Your task to perform on an android device: Show me popular games on the Play Store Image 0: 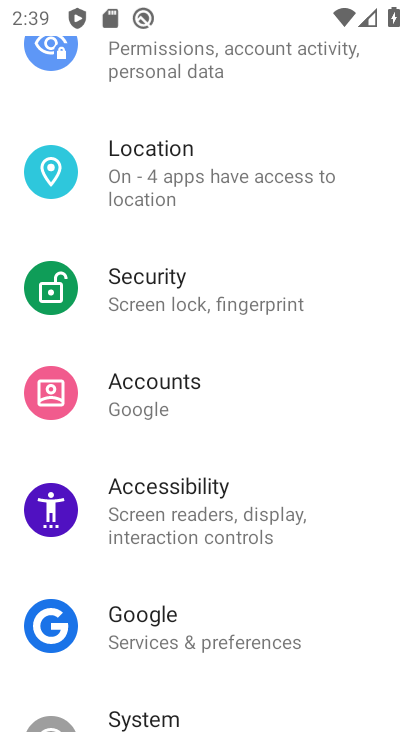
Step 0: press home button
Your task to perform on an android device: Show me popular games on the Play Store Image 1: 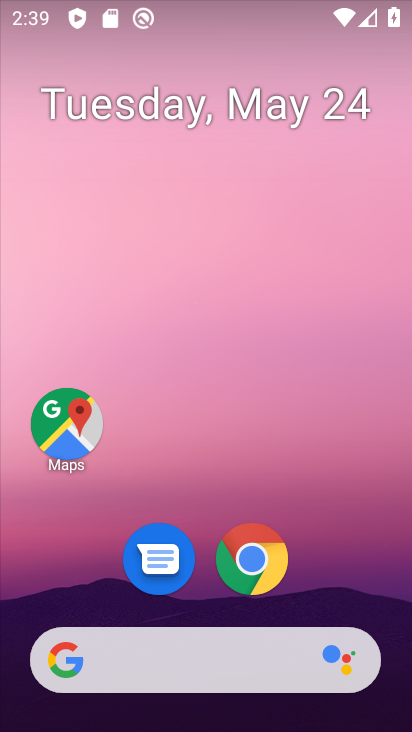
Step 1: drag from (199, 634) to (229, 268)
Your task to perform on an android device: Show me popular games on the Play Store Image 2: 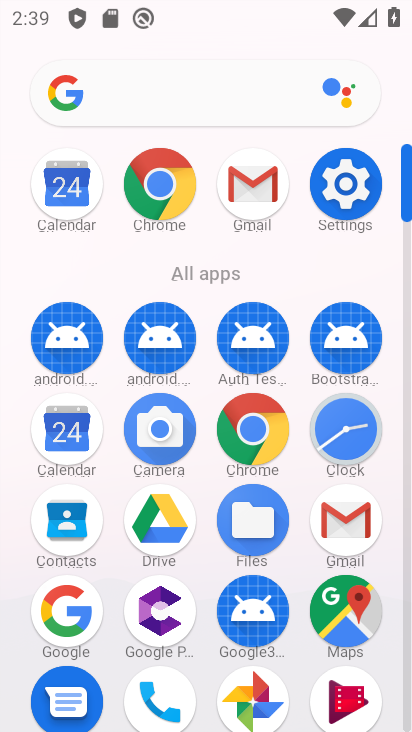
Step 2: drag from (192, 569) to (248, 234)
Your task to perform on an android device: Show me popular games on the Play Store Image 3: 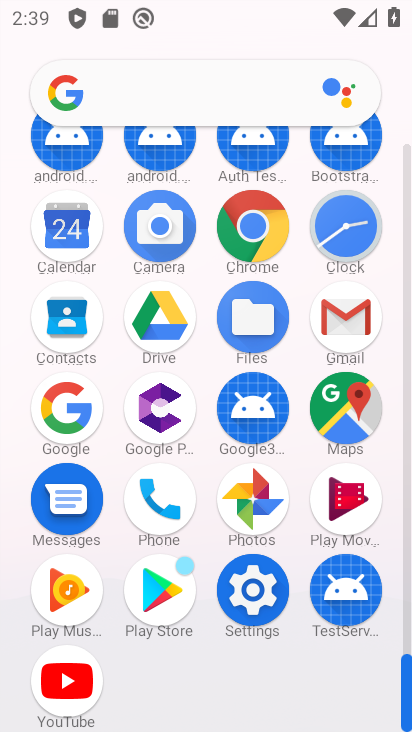
Step 3: click (152, 573)
Your task to perform on an android device: Show me popular games on the Play Store Image 4: 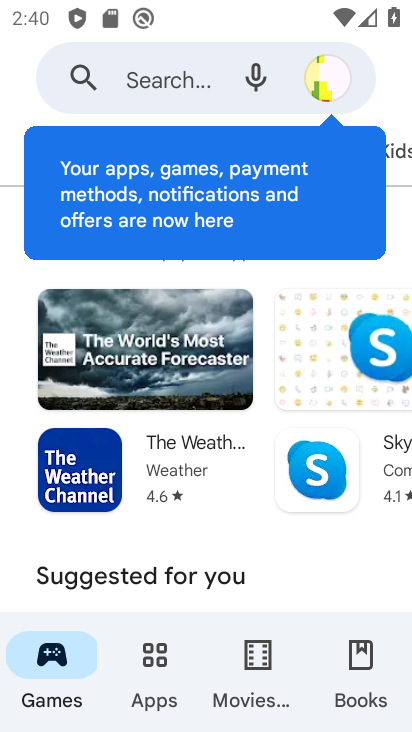
Step 4: drag from (239, 568) to (267, 291)
Your task to perform on an android device: Show me popular games on the Play Store Image 5: 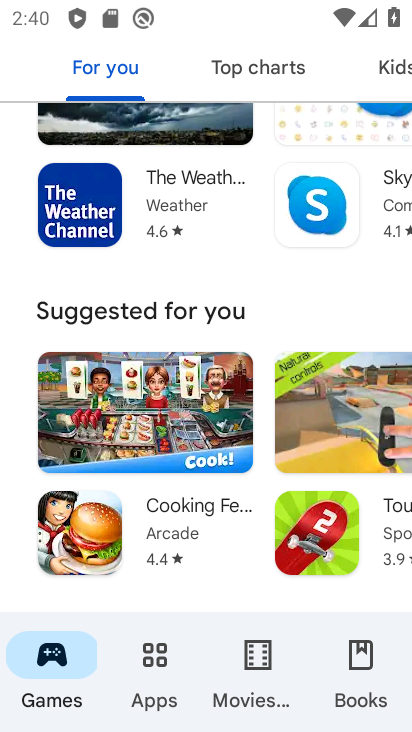
Step 5: drag from (194, 503) to (193, 174)
Your task to perform on an android device: Show me popular games on the Play Store Image 6: 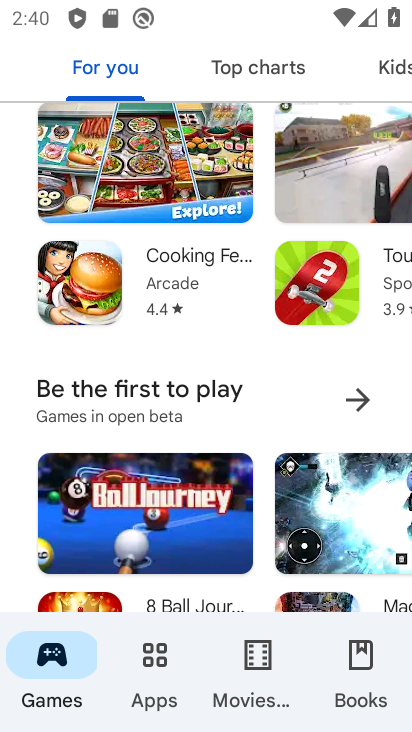
Step 6: drag from (211, 403) to (211, 83)
Your task to perform on an android device: Show me popular games on the Play Store Image 7: 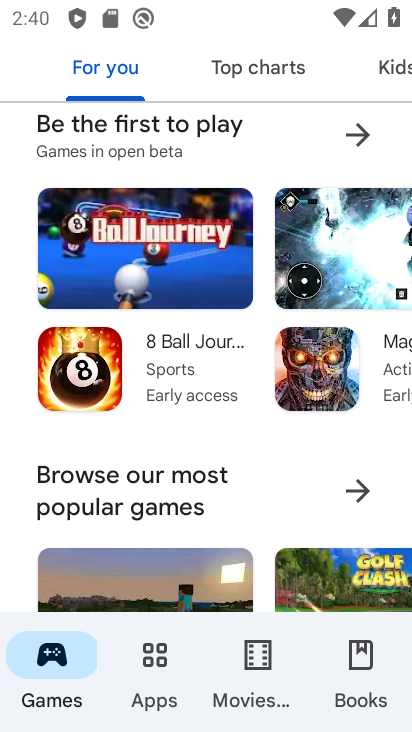
Step 7: click (331, 487)
Your task to perform on an android device: Show me popular games on the Play Store Image 8: 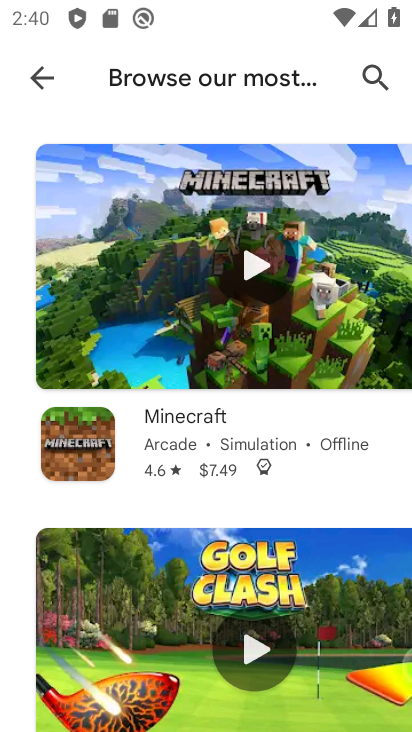
Step 8: task complete